Your task to perform on an android device: uninstall "Google Pay: Save, Pay, Manage" Image 0: 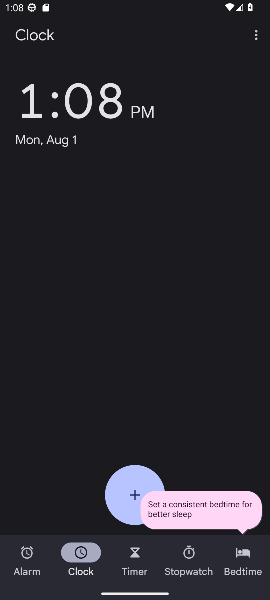
Step 0: press home button
Your task to perform on an android device: uninstall "Google Pay: Save, Pay, Manage" Image 1: 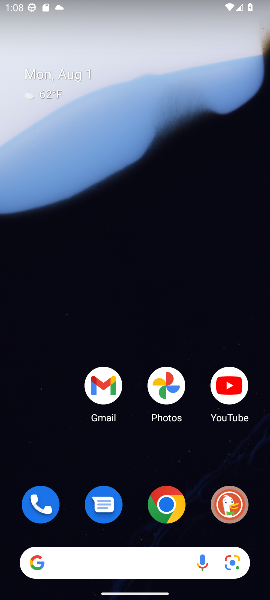
Step 1: drag from (180, 563) to (217, 13)
Your task to perform on an android device: uninstall "Google Pay: Save, Pay, Manage" Image 2: 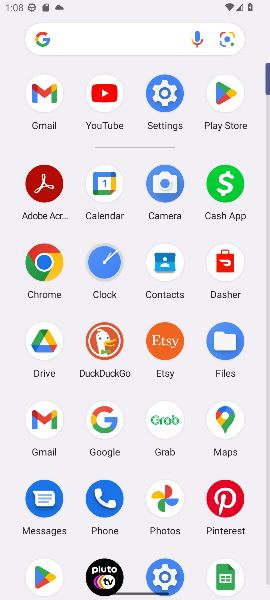
Step 2: click (231, 79)
Your task to perform on an android device: uninstall "Google Pay: Save, Pay, Manage" Image 3: 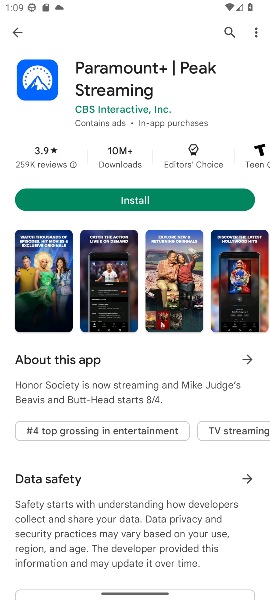
Step 3: click (234, 31)
Your task to perform on an android device: uninstall "Google Pay: Save, Pay, Manage" Image 4: 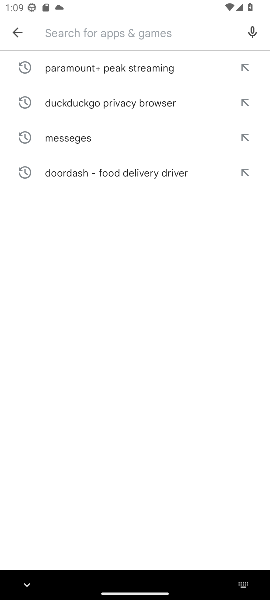
Step 4: type "Google pay: save, pay, Manage"
Your task to perform on an android device: uninstall "Google Pay: Save, Pay, Manage" Image 5: 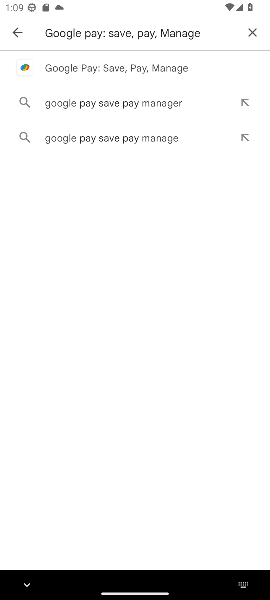
Step 5: click (165, 68)
Your task to perform on an android device: uninstall "Google Pay: Save, Pay, Manage" Image 6: 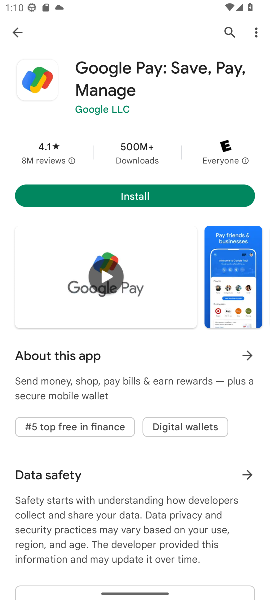
Step 6: task complete